Your task to perform on an android device: Go to wifi settings Image 0: 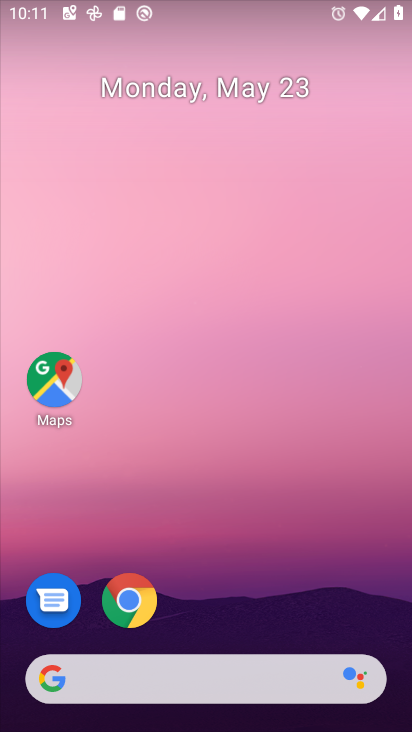
Step 0: drag from (205, 722) to (190, 629)
Your task to perform on an android device: Go to wifi settings Image 1: 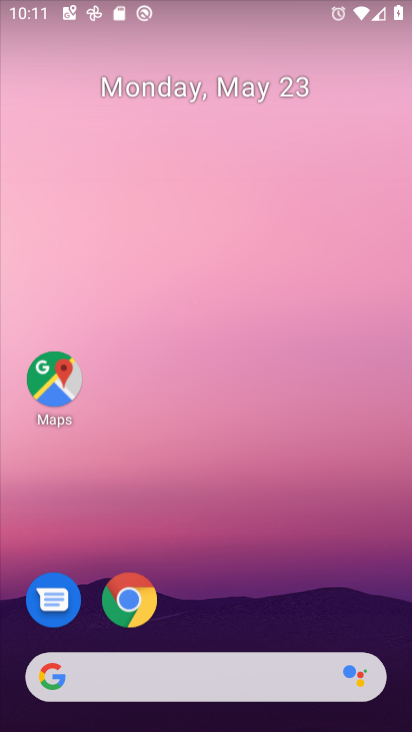
Step 1: drag from (172, 278) to (164, 182)
Your task to perform on an android device: Go to wifi settings Image 2: 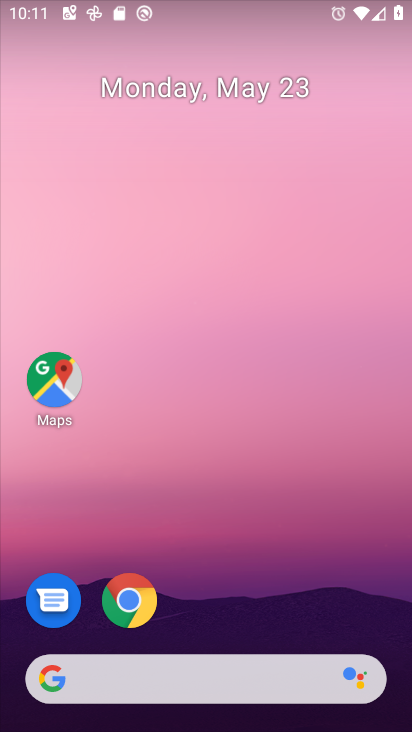
Step 2: drag from (212, 729) to (205, 153)
Your task to perform on an android device: Go to wifi settings Image 3: 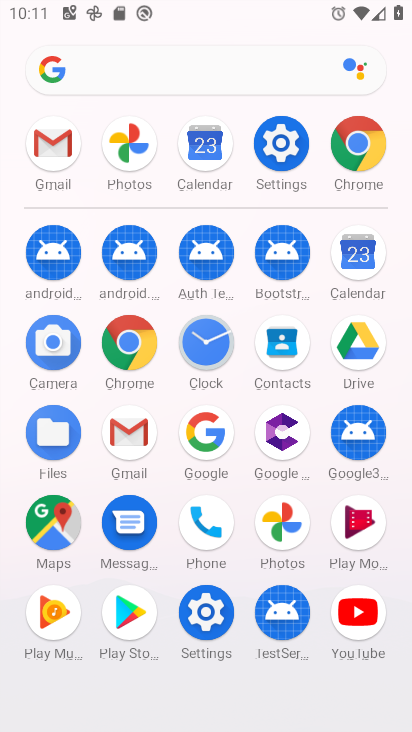
Step 3: click (280, 141)
Your task to perform on an android device: Go to wifi settings Image 4: 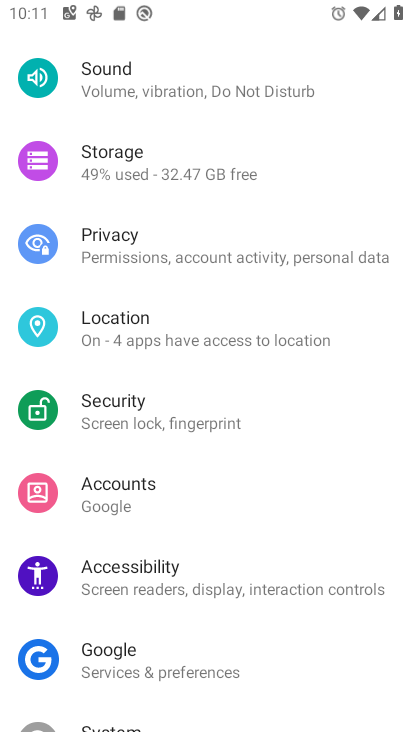
Step 4: drag from (258, 106) to (283, 542)
Your task to perform on an android device: Go to wifi settings Image 5: 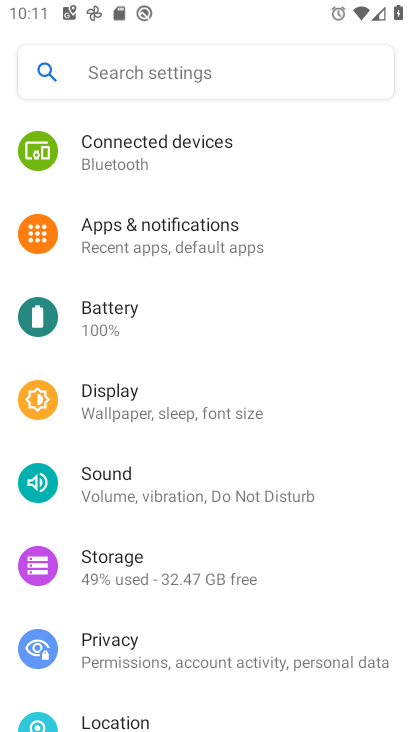
Step 5: drag from (244, 178) to (262, 542)
Your task to perform on an android device: Go to wifi settings Image 6: 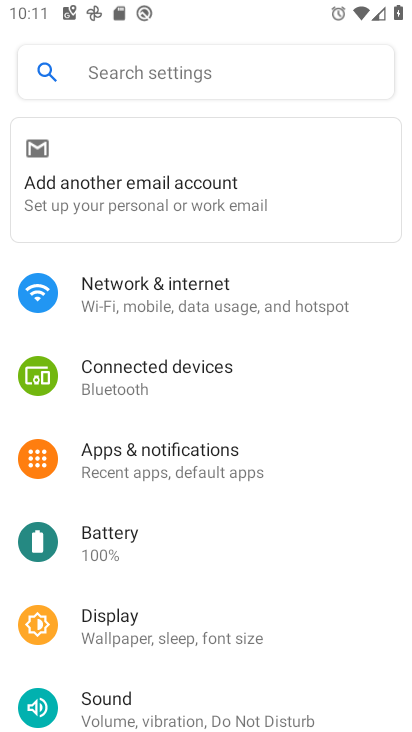
Step 6: click (132, 289)
Your task to perform on an android device: Go to wifi settings Image 7: 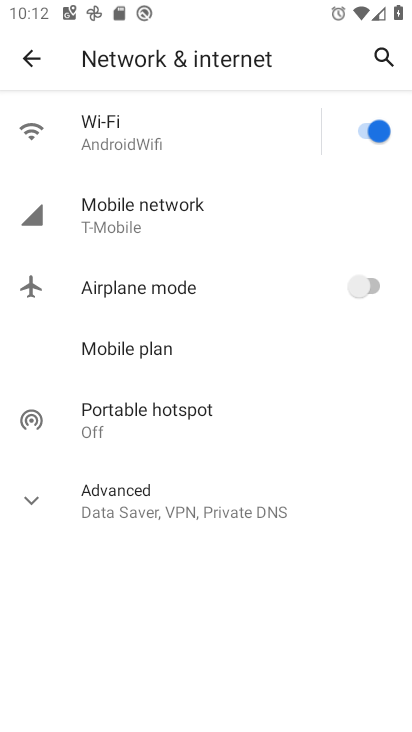
Step 7: click (113, 128)
Your task to perform on an android device: Go to wifi settings Image 8: 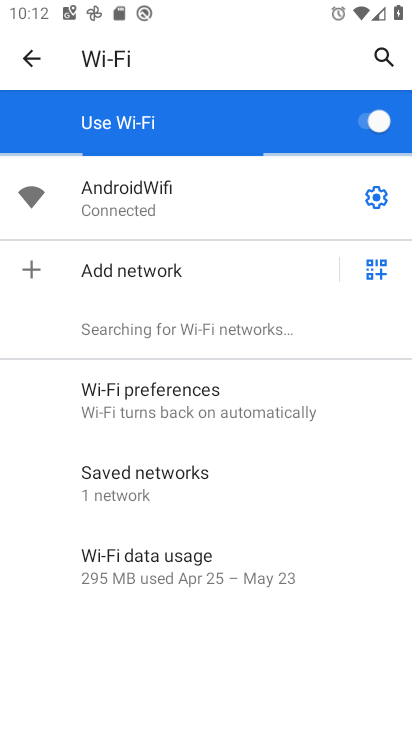
Step 8: task complete